Your task to perform on an android device: Turn off the flashlight Image 0: 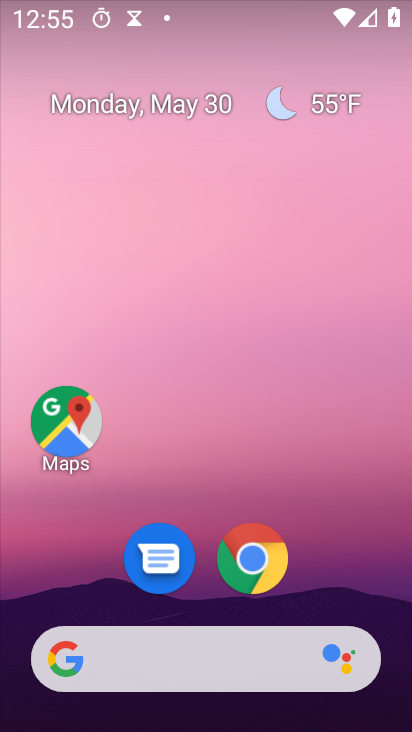
Step 0: drag from (353, 578) to (365, 9)
Your task to perform on an android device: Turn off the flashlight Image 1: 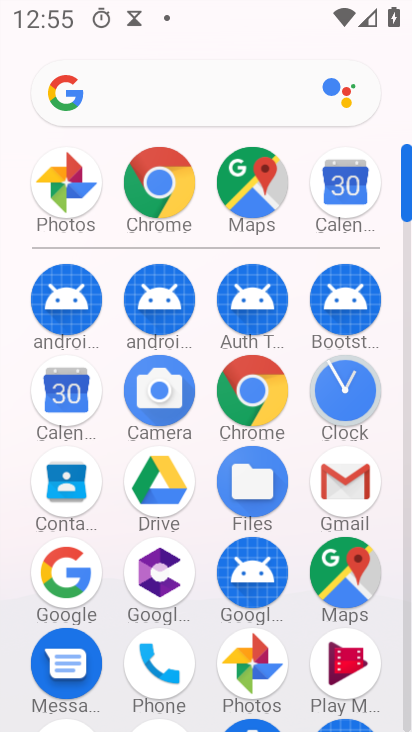
Step 1: drag from (390, 424) to (398, 131)
Your task to perform on an android device: Turn off the flashlight Image 2: 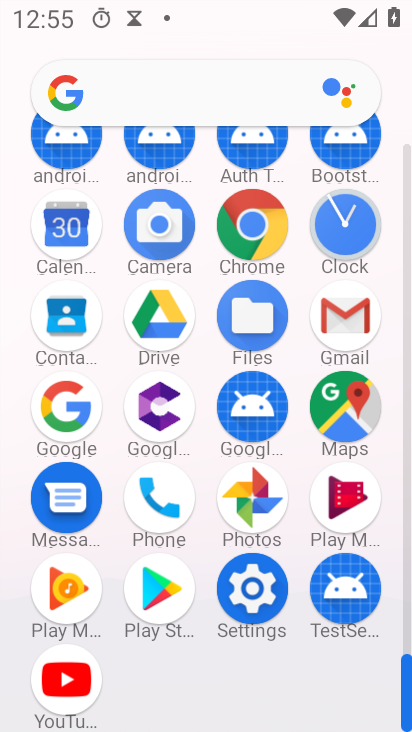
Step 2: click (231, 587)
Your task to perform on an android device: Turn off the flashlight Image 3: 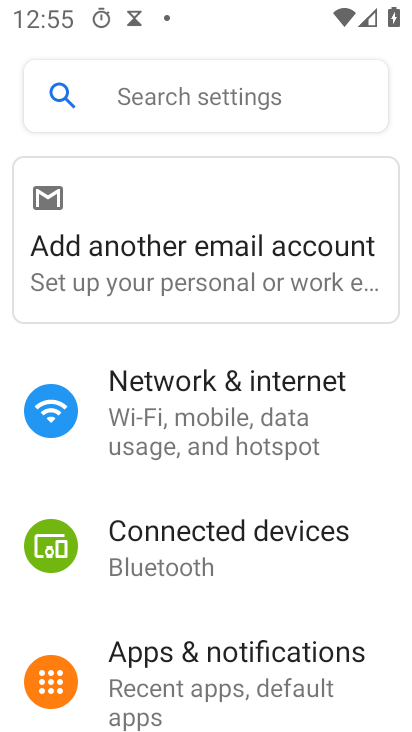
Step 3: task complete